Your task to perform on an android device: What is the recent news? Image 0: 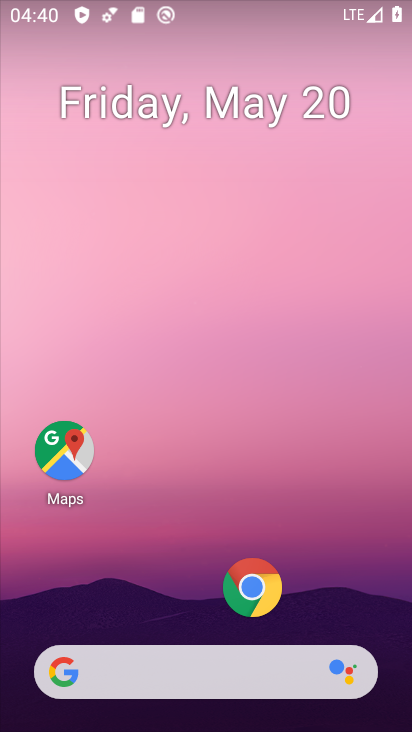
Step 0: click (147, 682)
Your task to perform on an android device: What is the recent news? Image 1: 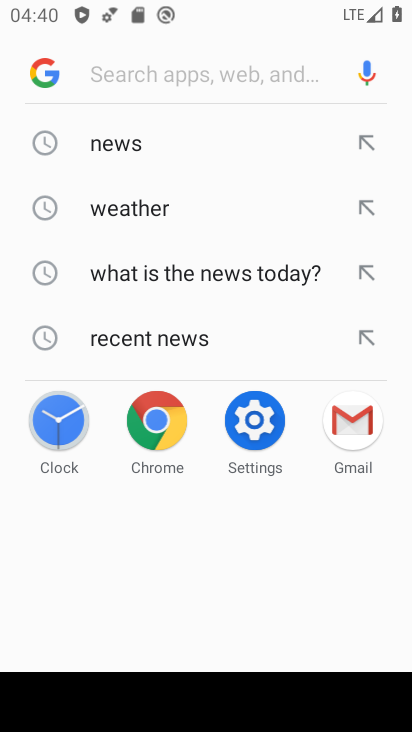
Step 1: click (149, 161)
Your task to perform on an android device: What is the recent news? Image 2: 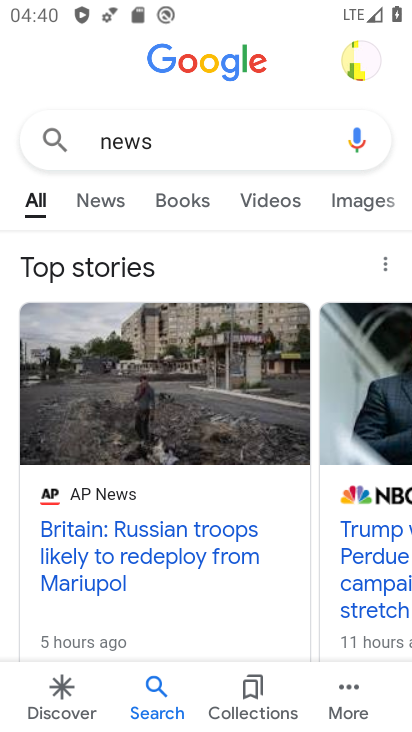
Step 2: task complete